Your task to perform on an android device: Open Google Image 0: 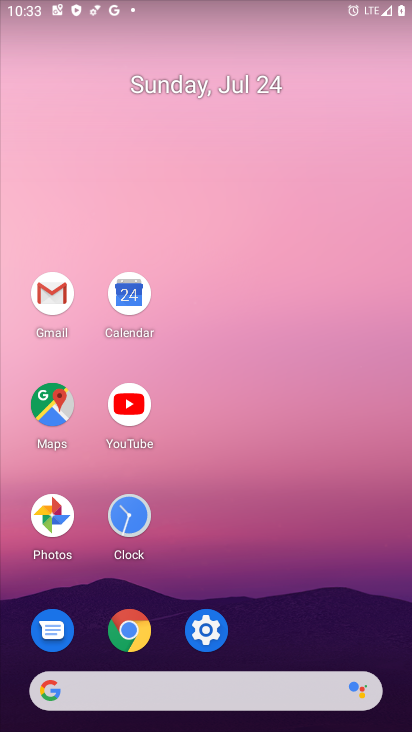
Step 0: click (111, 685)
Your task to perform on an android device: Open Google Image 1: 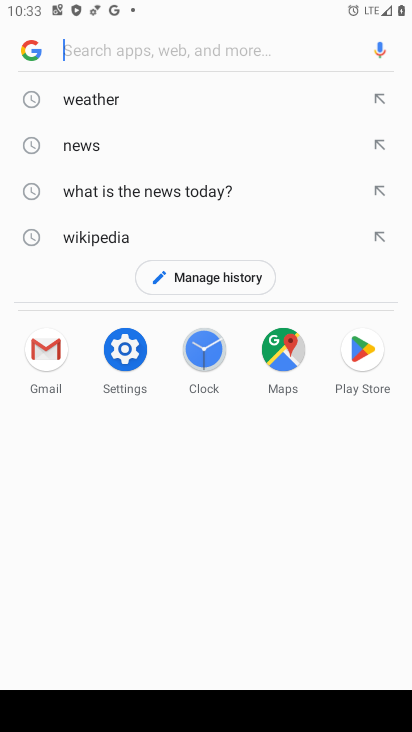
Step 1: click (26, 47)
Your task to perform on an android device: Open Google Image 2: 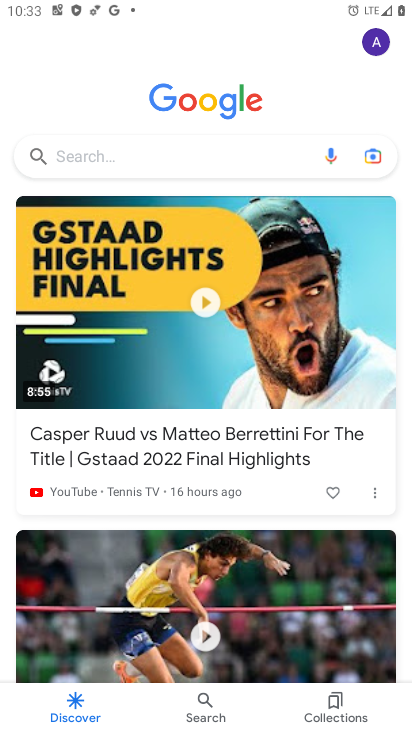
Step 2: task complete